Your task to perform on an android device: turn on bluetooth scan Image 0: 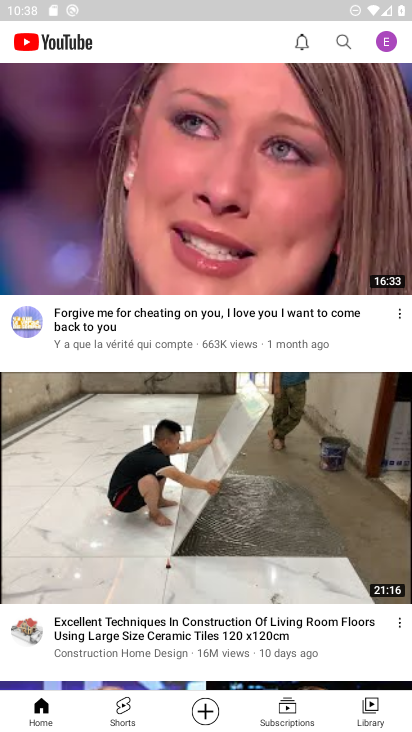
Step 0: press home button
Your task to perform on an android device: turn on bluetooth scan Image 1: 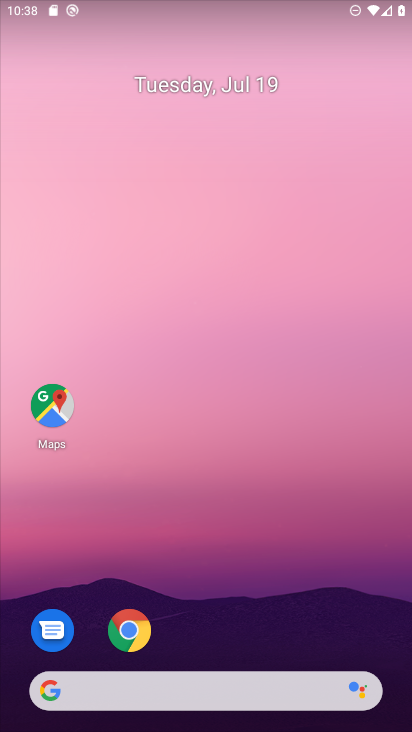
Step 1: drag from (199, 698) to (229, 65)
Your task to perform on an android device: turn on bluetooth scan Image 2: 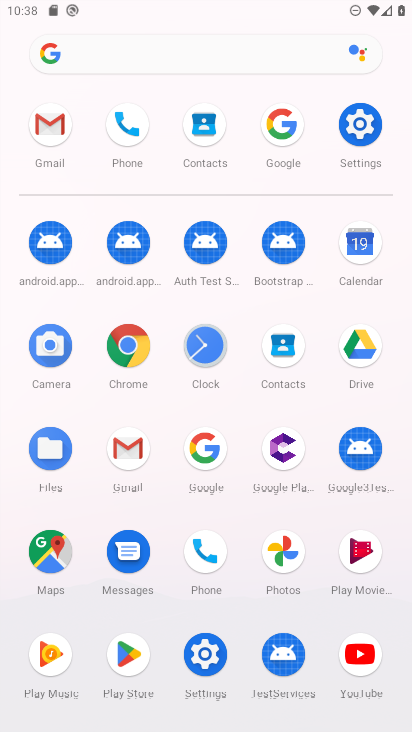
Step 2: click (359, 123)
Your task to perform on an android device: turn on bluetooth scan Image 3: 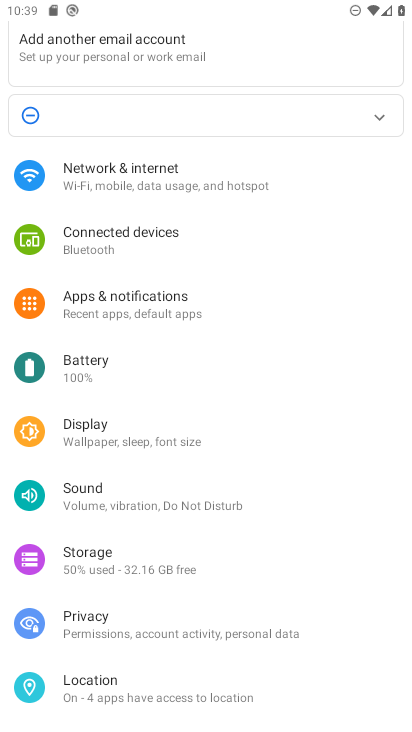
Step 3: click (122, 694)
Your task to perform on an android device: turn on bluetooth scan Image 4: 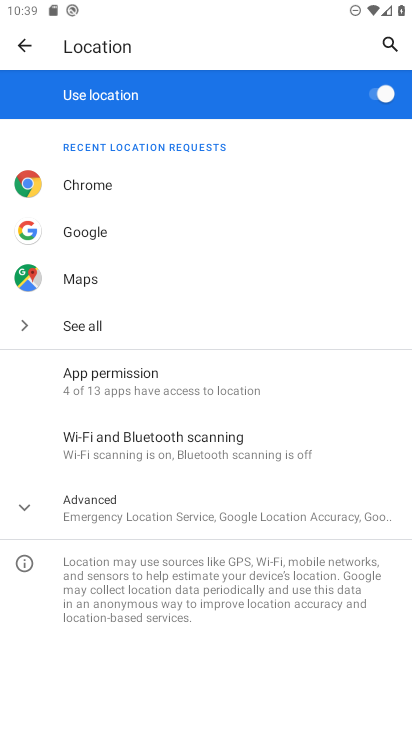
Step 4: click (171, 445)
Your task to perform on an android device: turn on bluetooth scan Image 5: 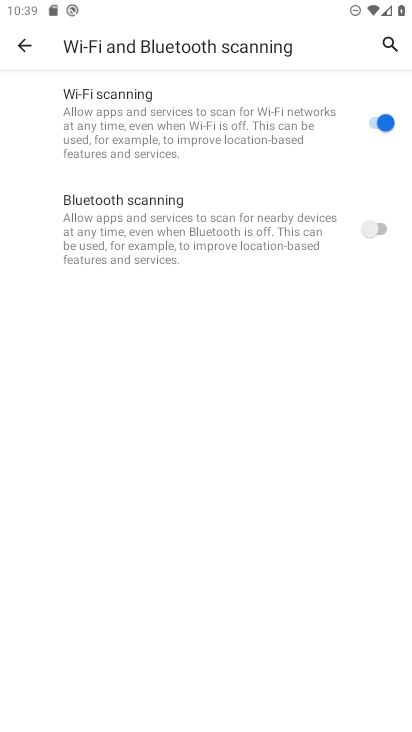
Step 5: click (368, 224)
Your task to perform on an android device: turn on bluetooth scan Image 6: 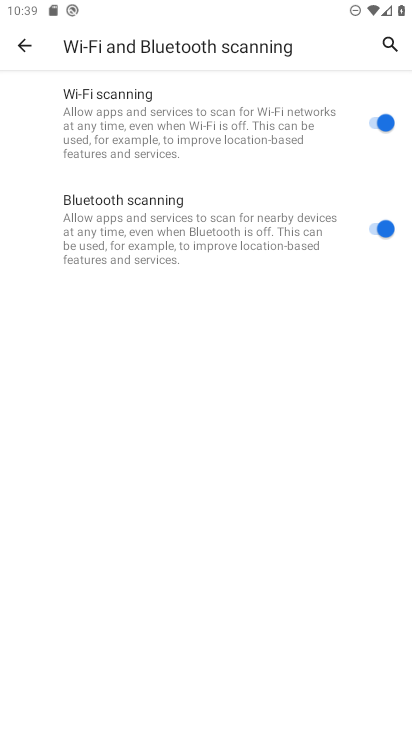
Step 6: task complete